Your task to perform on an android device: turn off location history Image 0: 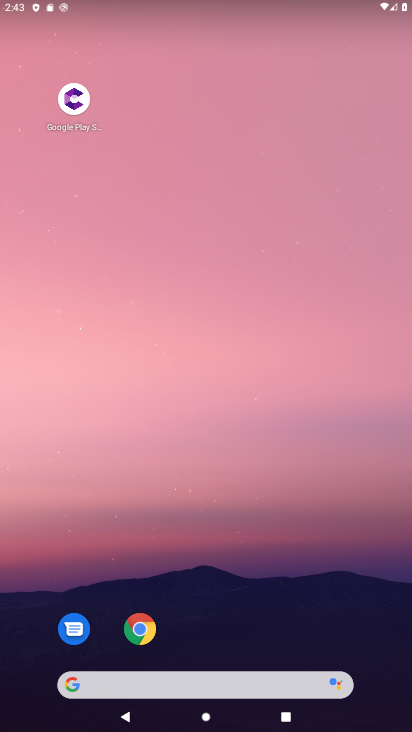
Step 0: drag from (192, 569) to (296, 32)
Your task to perform on an android device: turn off location history Image 1: 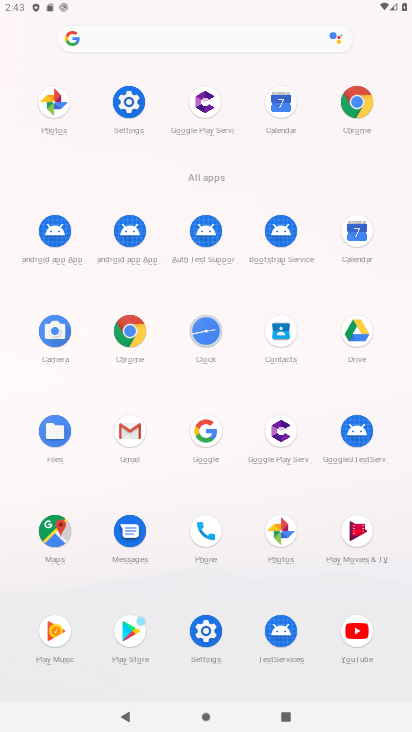
Step 1: click (206, 638)
Your task to perform on an android device: turn off location history Image 2: 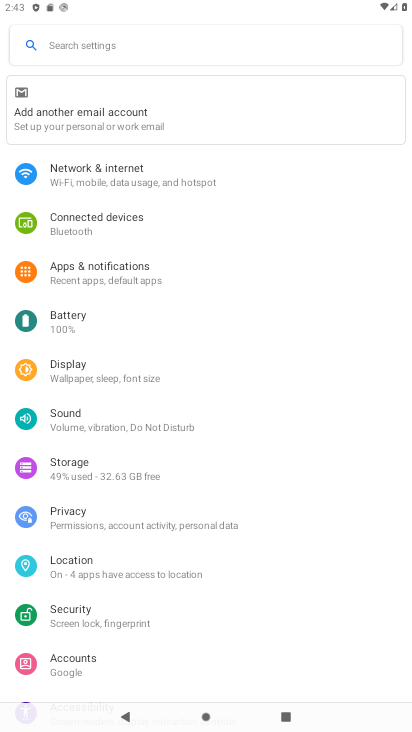
Step 2: drag from (114, 503) to (167, 501)
Your task to perform on an android device: turn off location history Image 3: 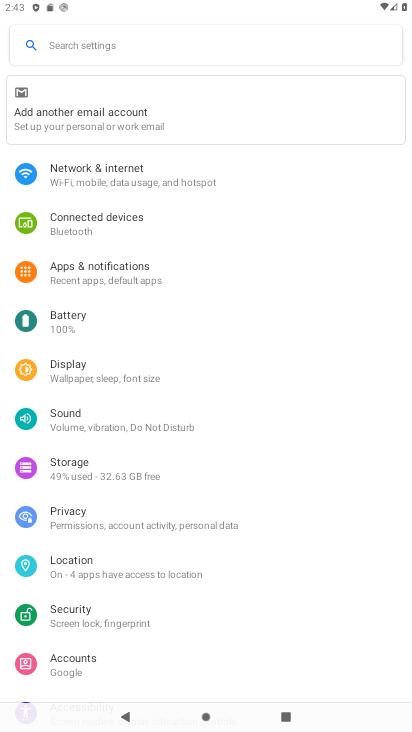
Step 3: click (111, 578)
Your task to perform on an android device: turn off location history Image 4: 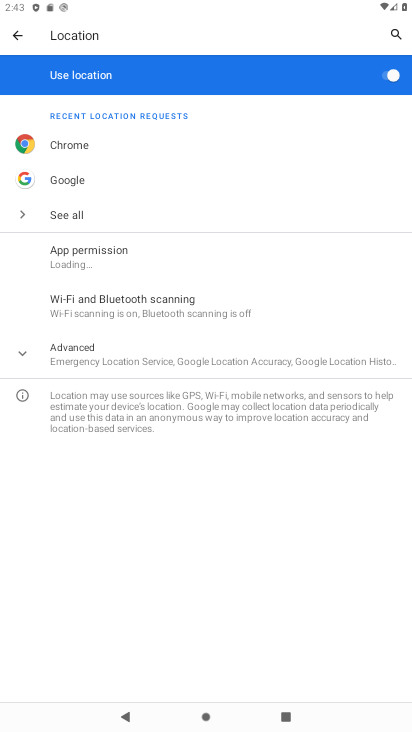
Step 4: click (114, 353)
Your task to perform on an android device: turn off location history Image 5: 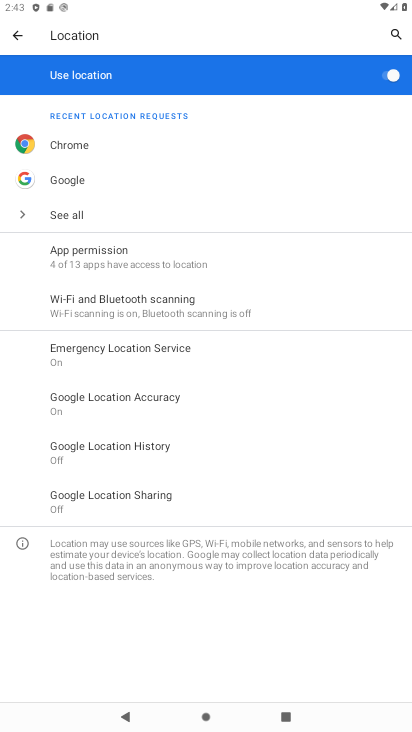
Step 5: click (159, 449)
Your task to perform on an android device: turn off location history Image 6: 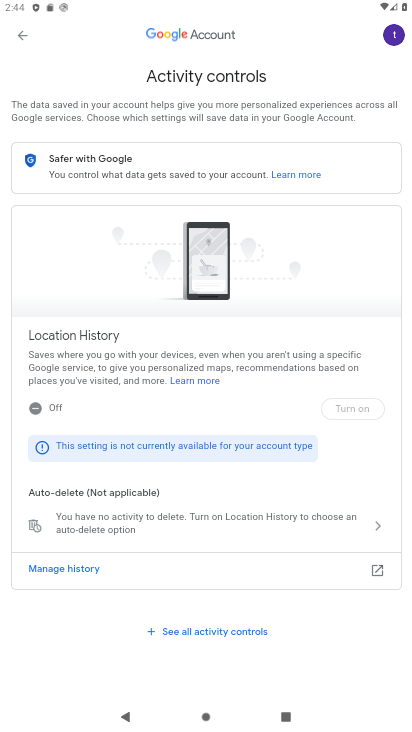
Step 6: task complete